Your task to perform on an android device: Open calendar and show me the first week of next month Image 0: 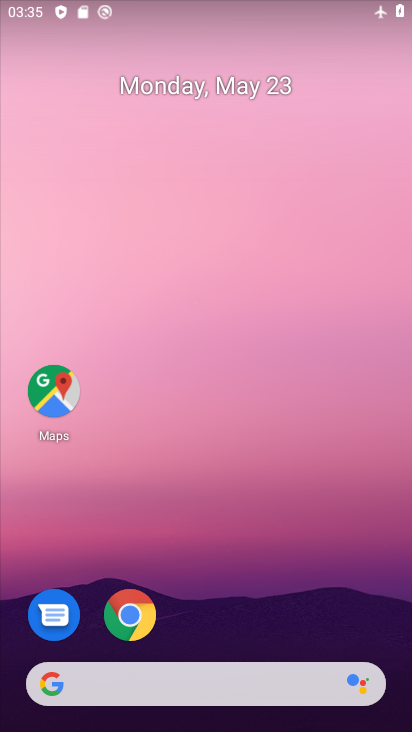
Step 0: drag from (320, 553) to (319, 254)
Your task to perform on an android device: Open calendar and show me the first week of next month Image 1: 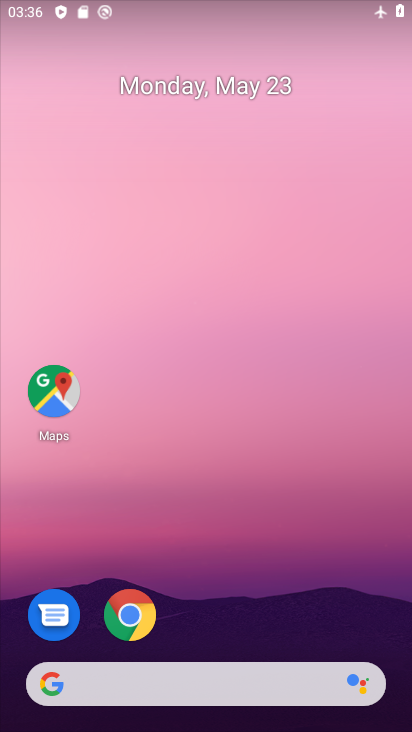
Step 1: drag from (262, 587) to (249, 227)
Your task to perform on an android device: Open calendar and show me the first week of next month Image 2: 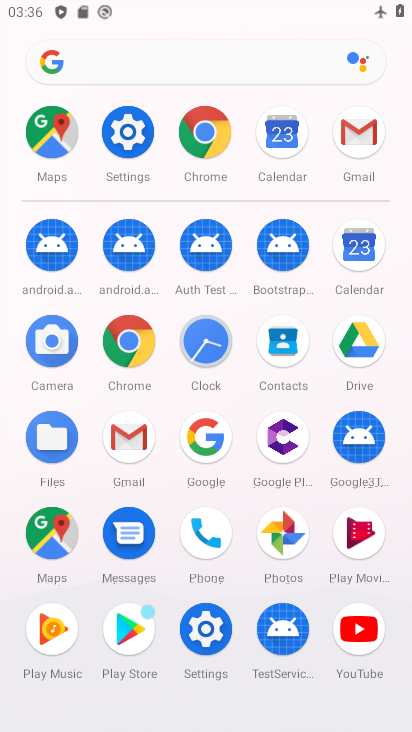
Step 2: click (363, 246)
Your task to perform on an android device: Open calendar and show me the first week of next month Image 3: 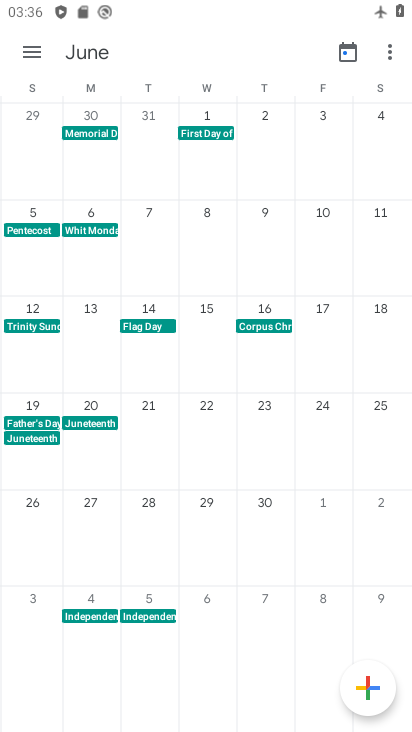
Step 3: task complete